Your task to perform on an android device: refresh tabs in the chrome app Image 0: 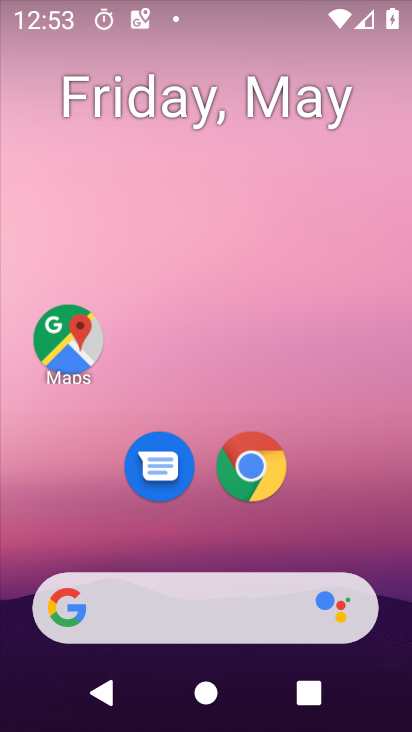
Step 0: drag from (395, 611) to (328, 205)
Your task to perform on an android device: refresh tabs in the chrome app Image 1: 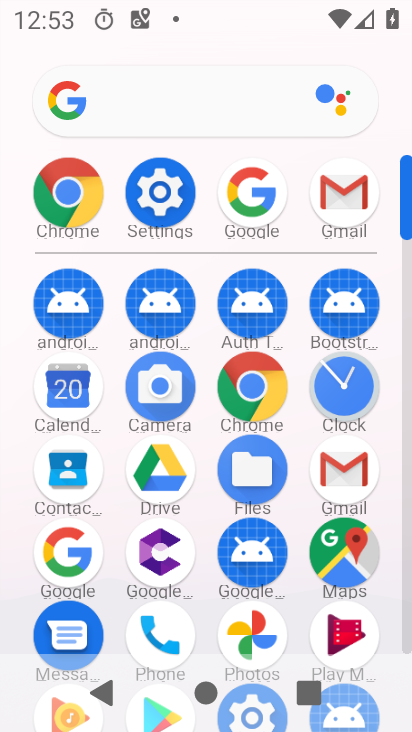
Step 1: click (37, 188)
Your task to perform on an android device: refresh tabs in the chrome app Image 2: 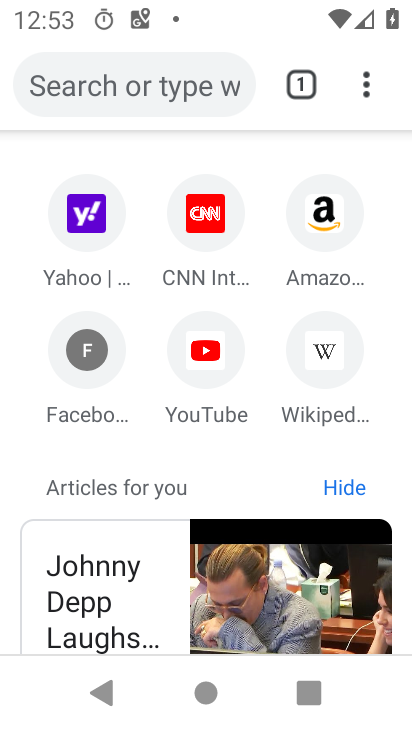
Step 2: click (366, 87)
Your task to perform on an android device: refresh tabs in the chrome app Image 3: 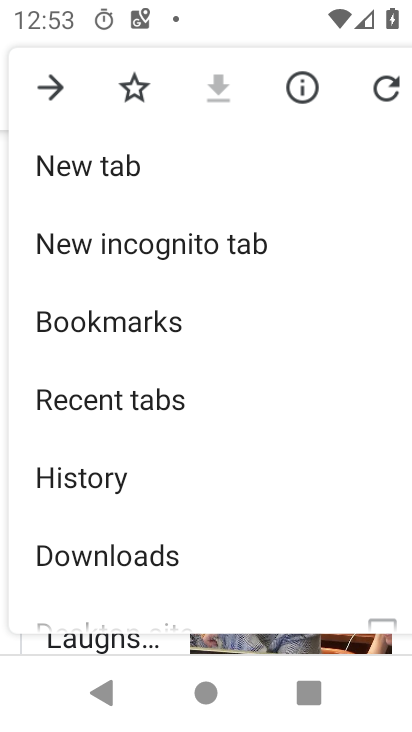
Step 3: click (379, 90)
Your task to perform on an android device: refresh tabs in the chrome app Image 4: 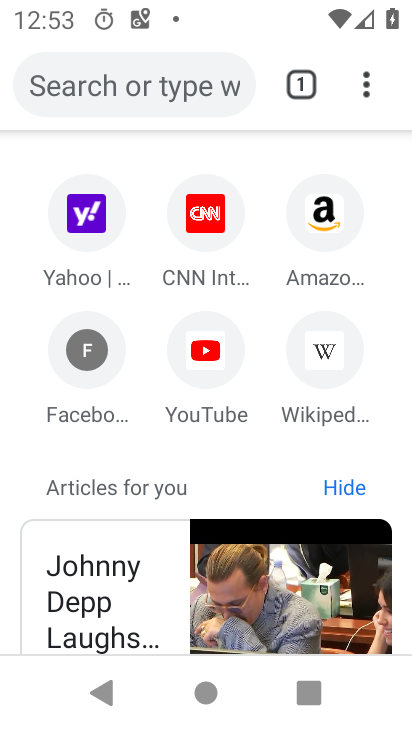
Step 4: task complete